Your task to perform on an android device: Open Google Chrome and click the shortcut for Amazon.com Image 0: 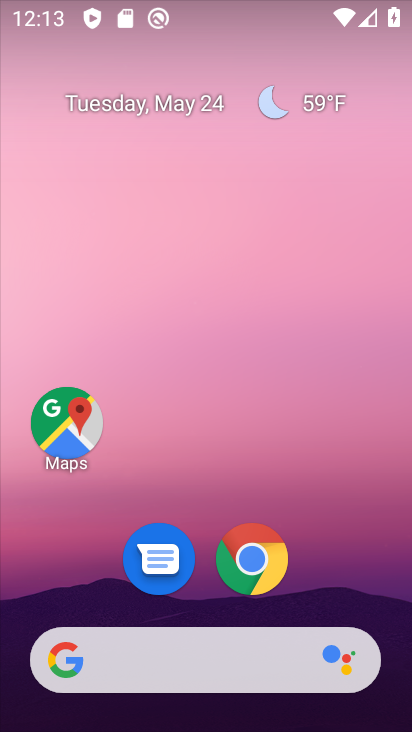
Step 0: click (262, 557)
Your task to perform on an android device: Open Google Chrome and click the shortcut for Amazon.com Image 1: 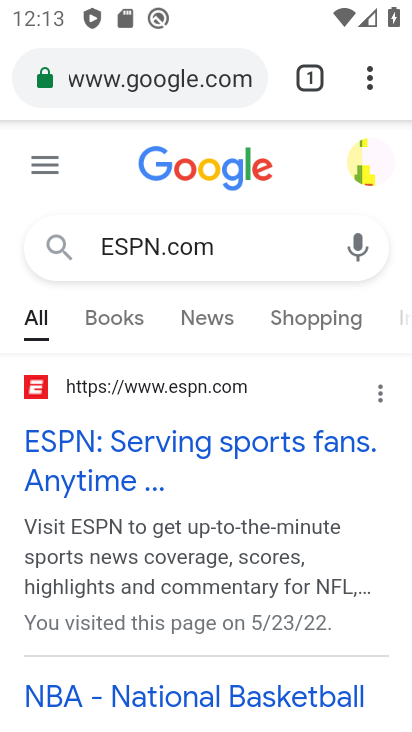
Step 1: click (253, 69)
Your task to perform on an android device: Open Google Chrome and click the shortcut for Amazon.com Image 2: 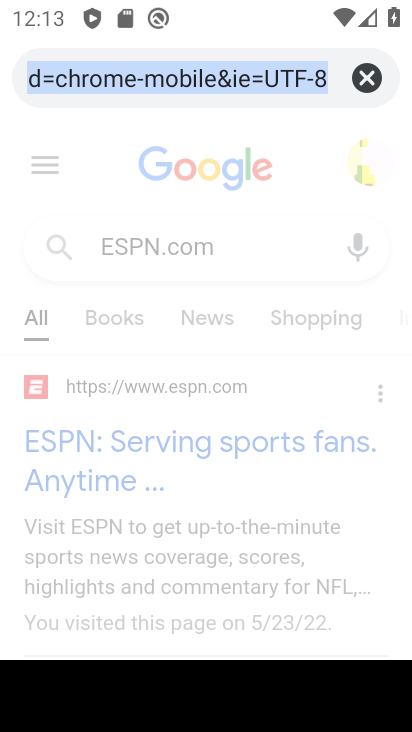
Step 2: click (359, 72)
Your task to perform on an android device: Open Google Chrome and click the shortcut for Amazon.com Image 3: 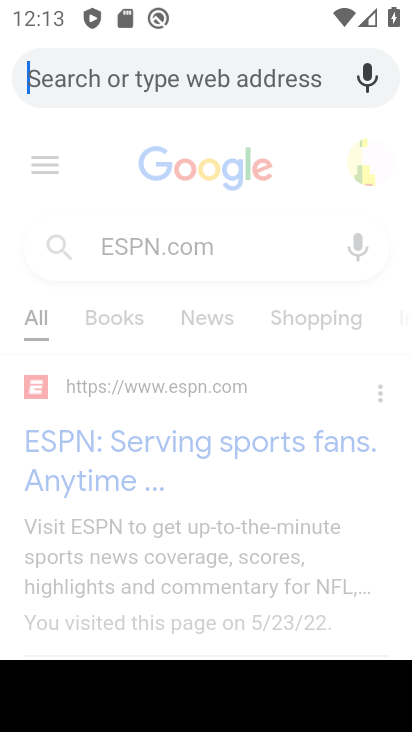
Step 3: type "Amazon.com"
Your task to perform on an android device: Open Google Chrome and click the shortcut for Amazon.com Image 4: 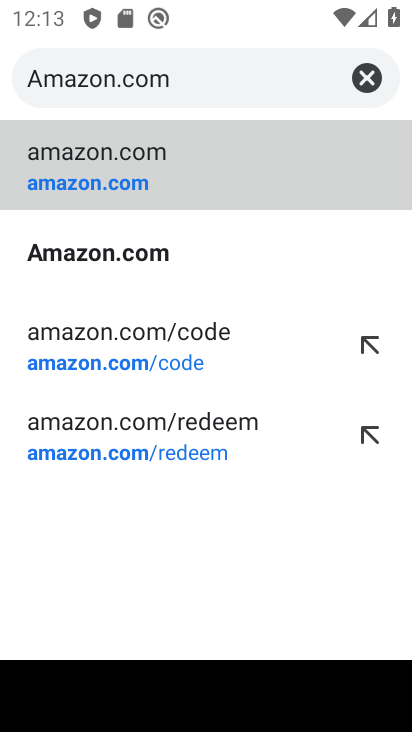
Step 4: click (131, 250)
Your task to perform on an android device: Open Google Chrome and click the shortcut for Amazon.com Image 5: 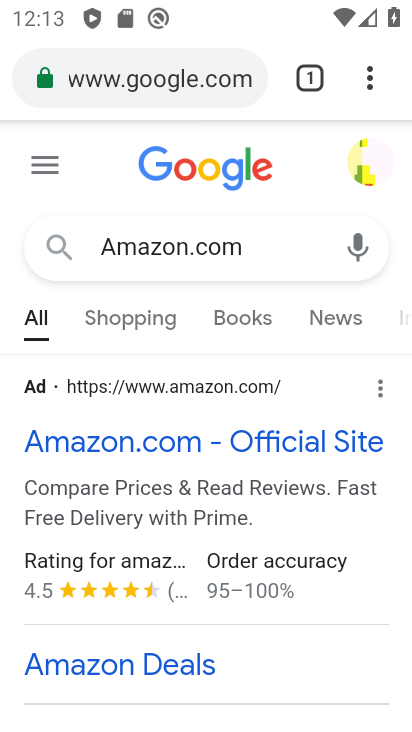
Step 5: task complete